Your task to perform on an android device: turn off translation in the chrome app Image 0: 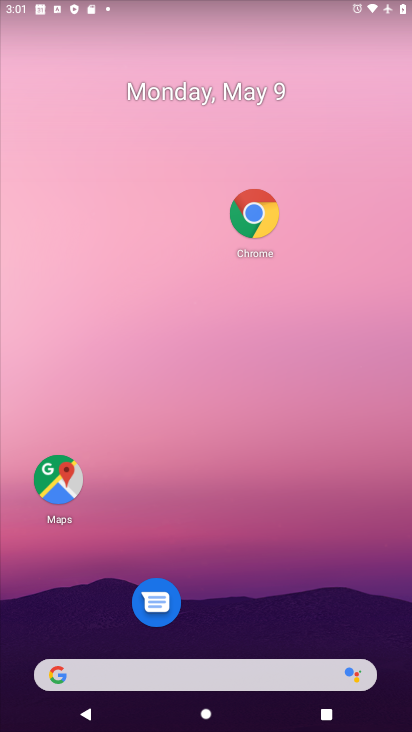
Step 0: click (272, 258)
Your task to perform on an android device: turn off translation in the chrome app Image 1: 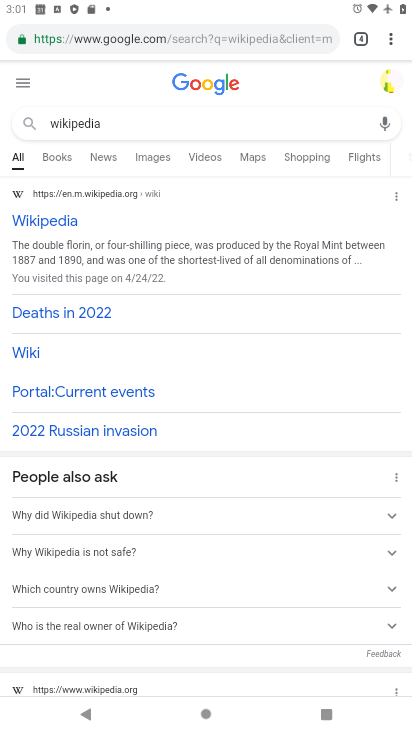
Step 1: click (386, 45)
Your task to perform on an android device: turn off translation in the chrome app Image 2: 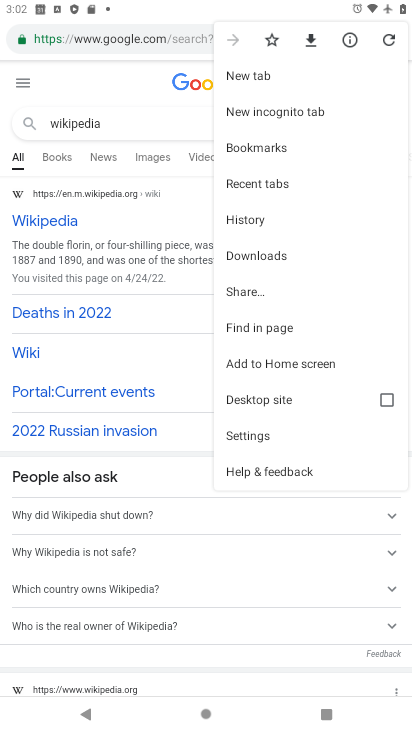
Step 2: click (275, 429)
Your task to perform on an android device: turn off translation in the chrome app Image 3: 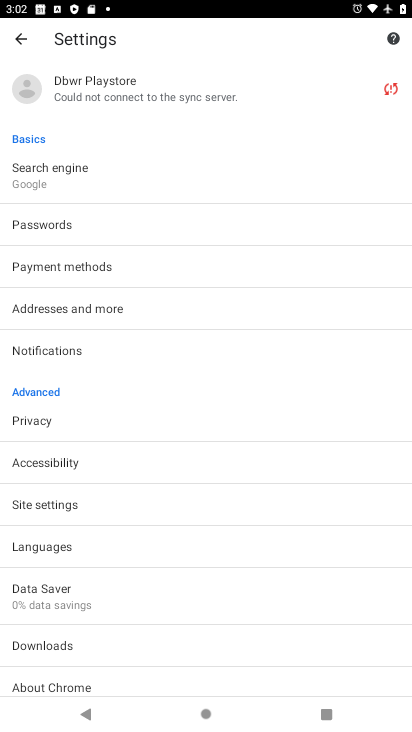
Step 3: click (163, 535)
Your task to perform on an android device: turn off translation in the chrome app Image 4: 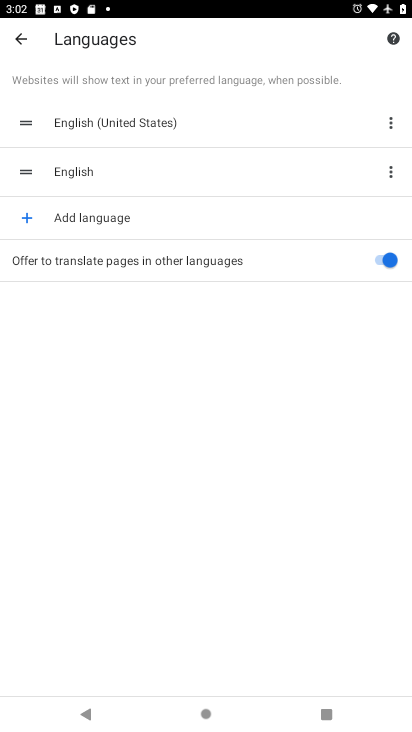
Step 4: task complete